Your task to perform on an android device: turn off airplane mode Image 0: 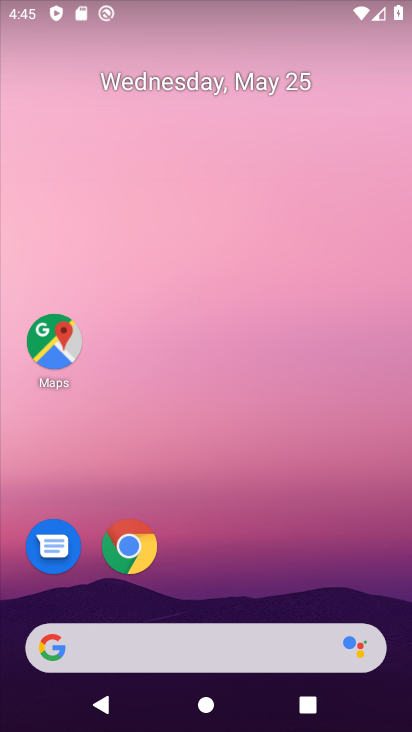
Step 0: press home button
Your task to perform on an android device: turn off airplane mode Image 1: 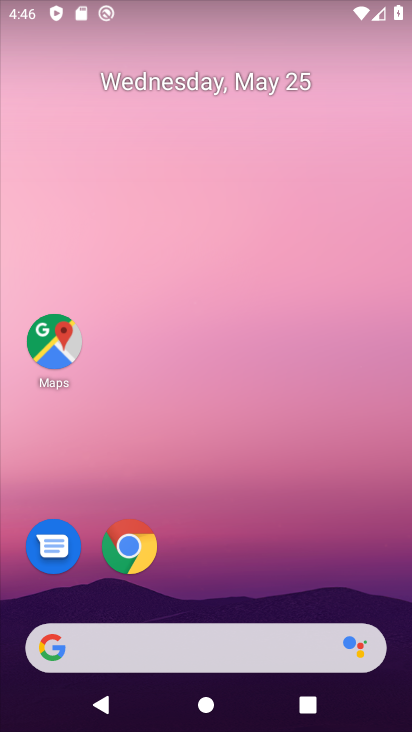
Step 1: drag from (281, 712) to (349, 48)
Your task to perform on an android device: turn off airplane mode Image 2: 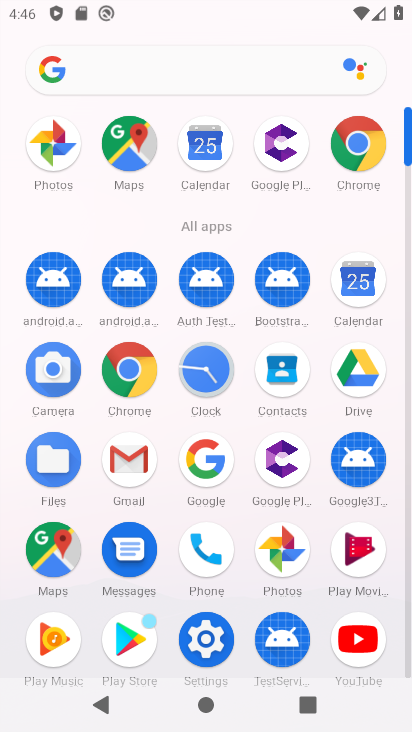
Step 2: click (186, 626)
Your task to perform on an android device: turn off airplane mode Image 3: 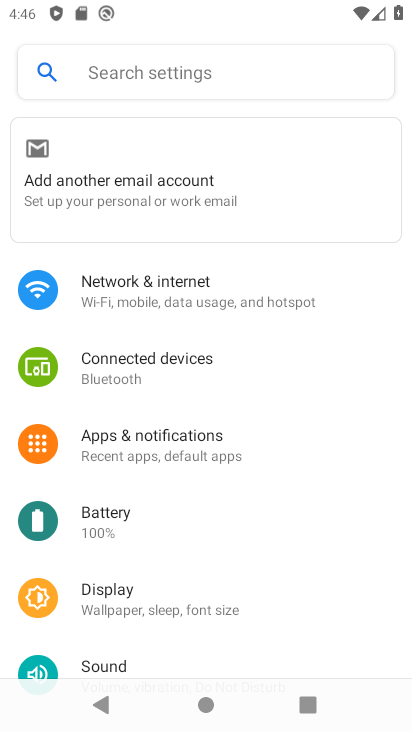
Step 3: click (191, 286)
Your task to perform on an android device: turn off airplane mode Image 4: 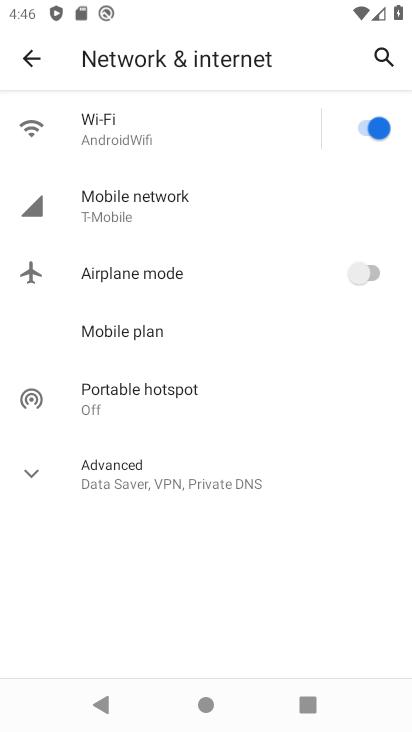
Step 4: task complete